Your task to perform on an android device: Is it going to rain tomorrow? Image 0: 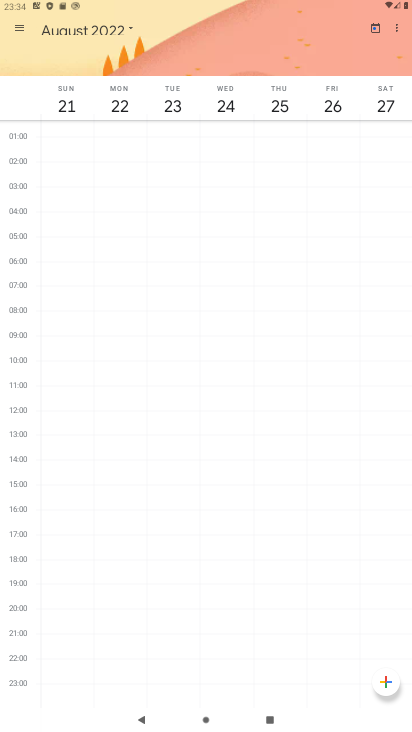
Step 0: press home button
Your task to perform on an android device: Is it going to rain tomorrow? Image 1: 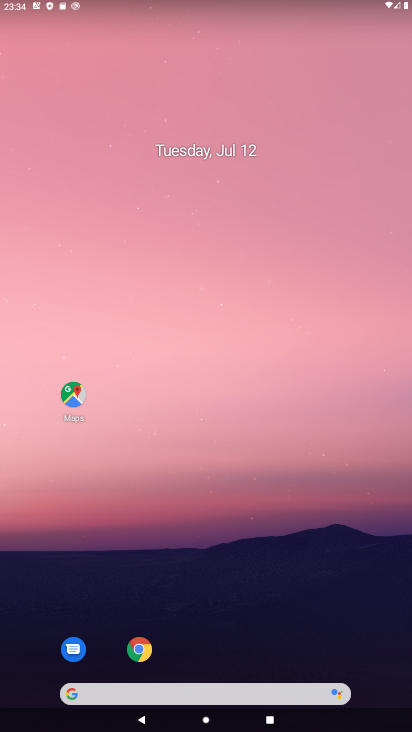
Step 1: drag from (8, 290) to (378, 309)
Your task to perform on an android device: Is it going to rain tomorrow? Image 2: 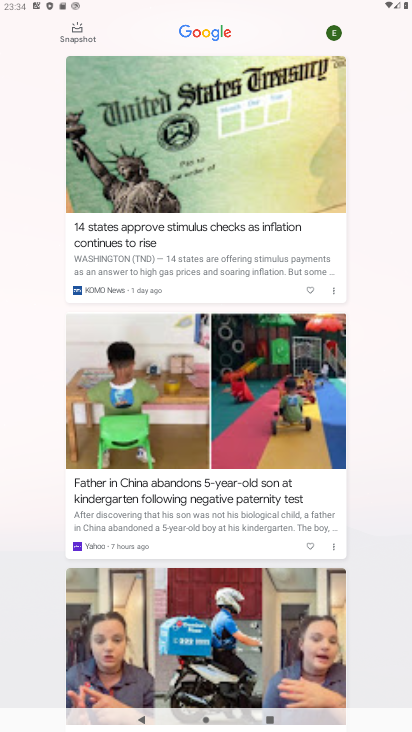
Step 2: drag from (402, 344) to (47, 326)
Your task to perform on an android device: Is it going to rain tomorrow? Image 3: 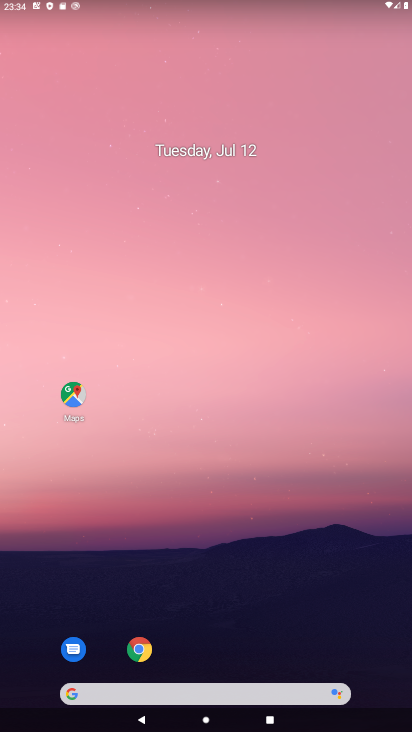
Step 3: click (129, 695)
Your task to perform on an android device: Is it going to rain tomorrow? Image 4: 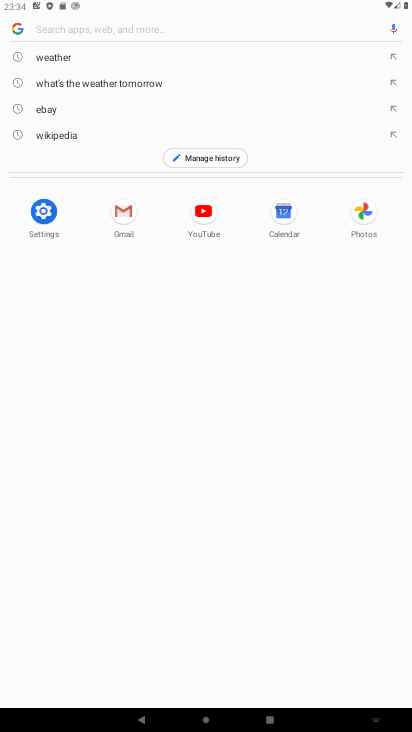
Step 4: click (55, 55)
Your task to perform on an android device: Is it going to rain tomorrow? Image 5: 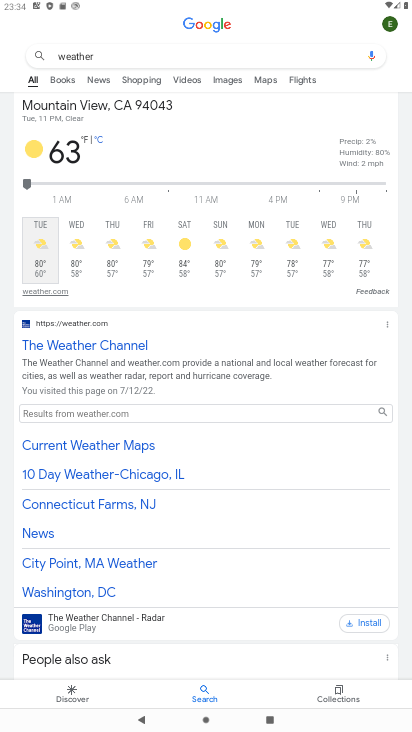
Step 5: task complete